Your task to perform on an android device: delete browsing data in the chrome app Image 0: 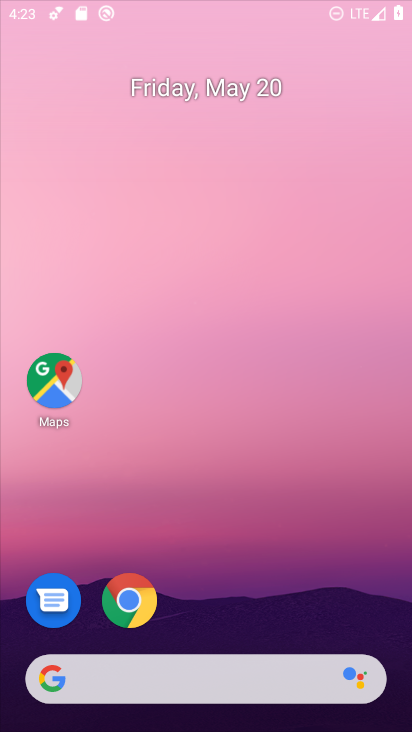
Step 0: click (385, 143)
Your task to perform on an android device: delete browsing data in the chrome app Image 1: 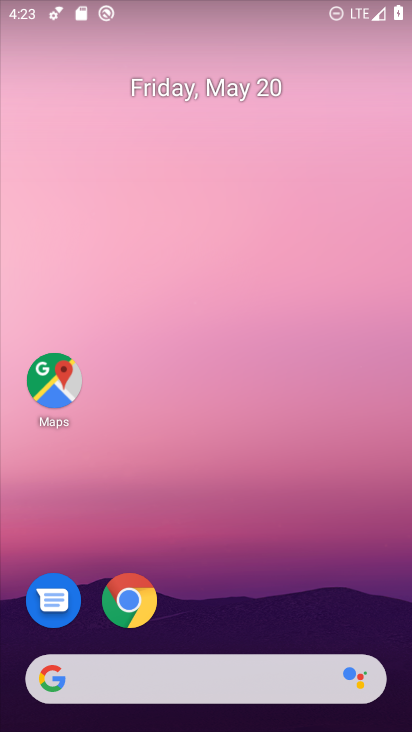
Step 1: click (139, 600)
Your task to perform on an android device: delete browsing data in the chrome app Image 2: 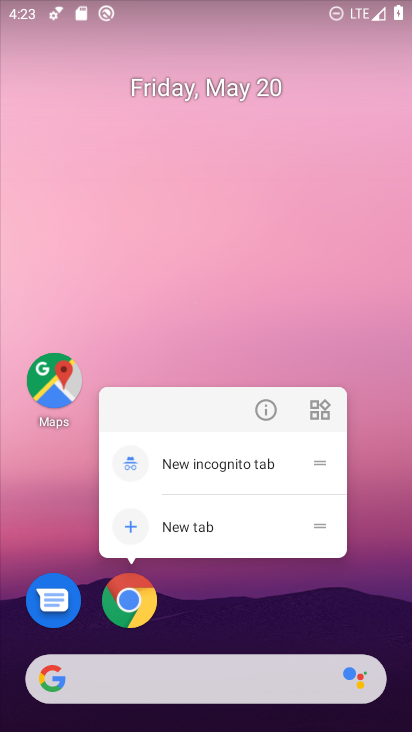
Step 2: click (127, 594)
Your task to perform on an android device: delete browsing data in the chrome app Image 3: 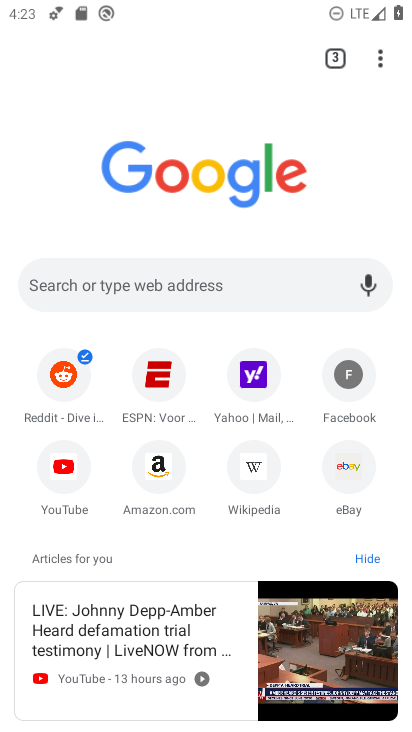
Step 3: drag from (376, 59) to (181, 330)
Your task to perform on an android device: delete browsing data in the chrome app Image 4: 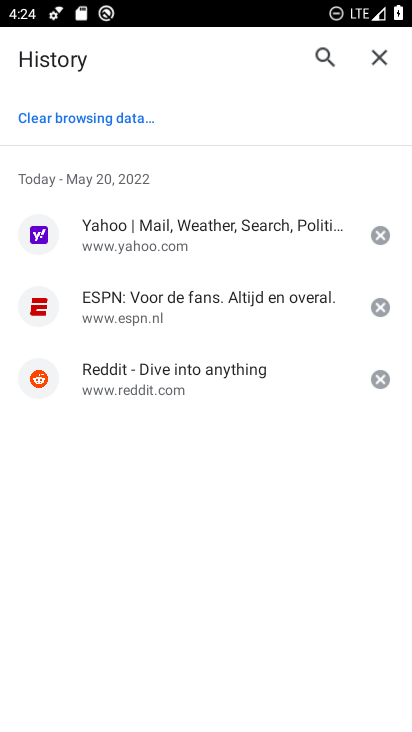
Step 4: click (126, 117)
Your task to perform on an android device: delete browsing data in the chrome app Image 5: 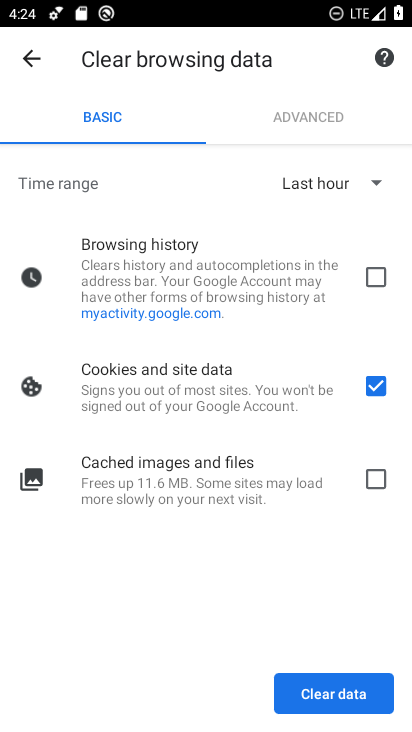
Step 5: click (373, 272)
Your task to perform on an android device: delete browsing data in the chrome app Image 6: 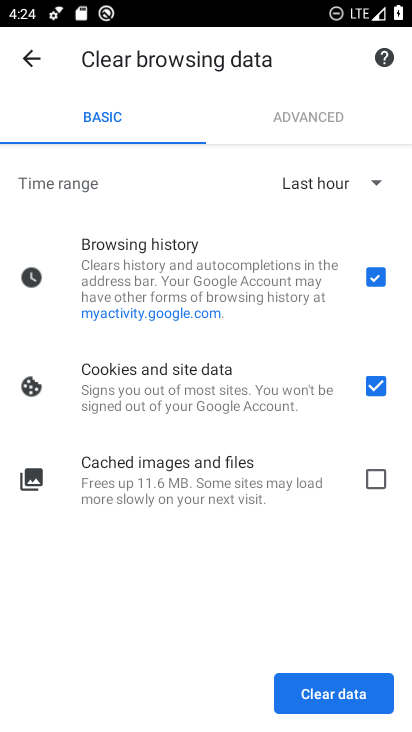
Step 6: click (380, 468)
Your task to perform on an android device: delete browsing data in the chrome app Image 7: 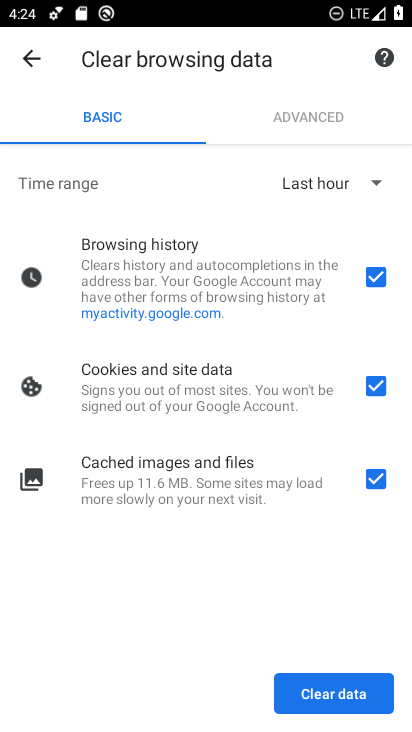
Step 7: click (339, 706)
Your task to perform on an android device: delete browsing data in the chrome app Image 8: 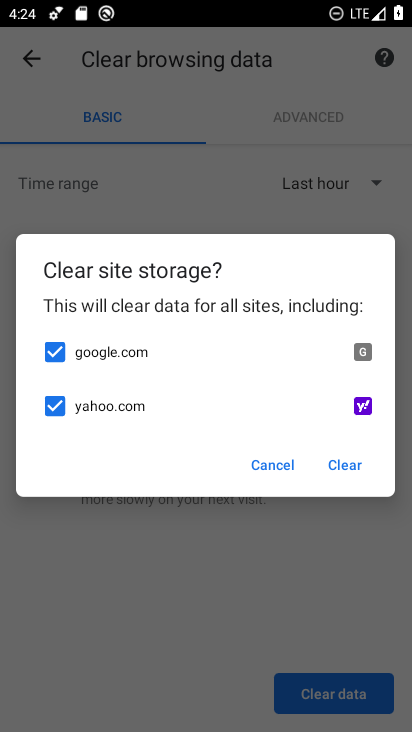
Step 8: click (348, 465)
Your task to perform on an android device: delete browsing data in the chrome app Image 9: 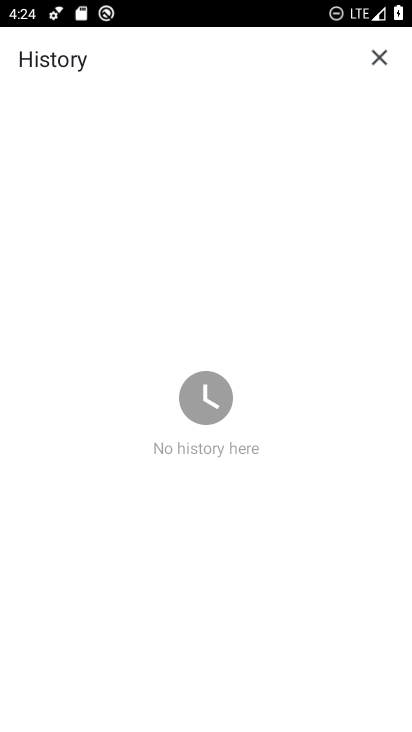
Step 9: task complete